Your task to perform on an android device: snooze an email in the gmail app Image 0: 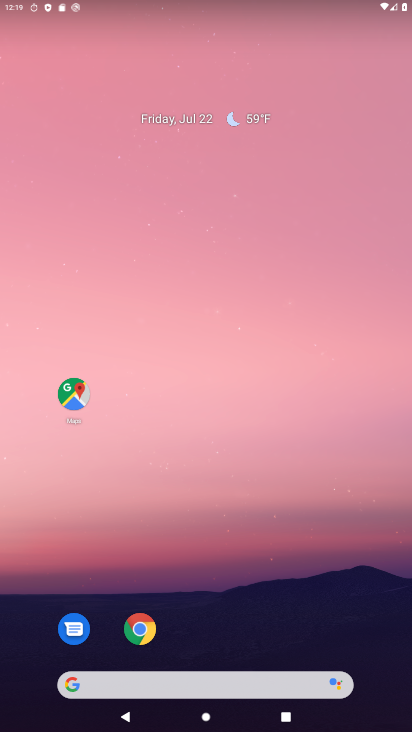
Step 0: drag from (191, 646) to (260, 205)
Your task to perform on an android device: snooze an email in the gmail app Image 1: 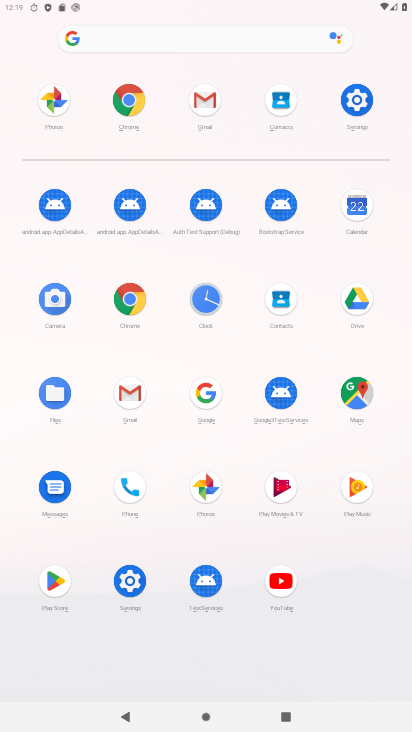
Step 1: click (129, 383)
Your task to perform on an android device: snooze an email in the gmail app Image 2: 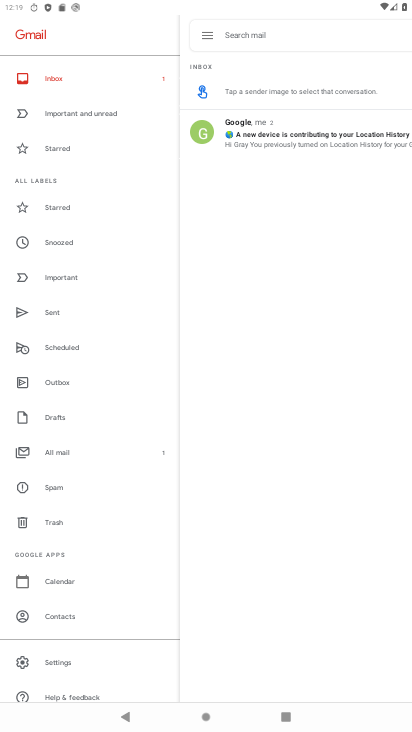
Step 2: click (63, 243)
Your task to perform on an android device: snooze an email in the gmail app Image 3: 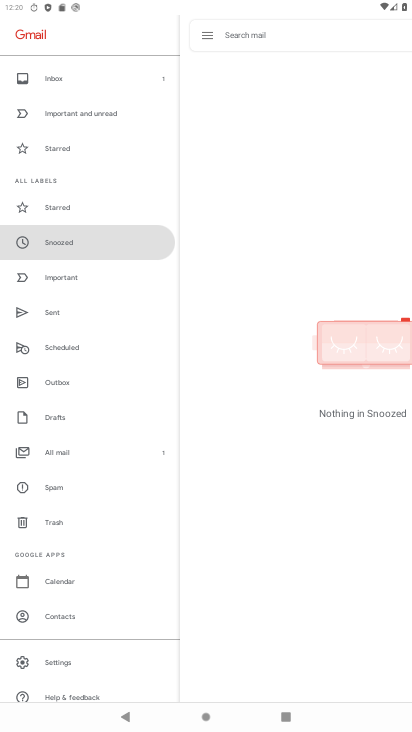
Step 3: task complete